Your task to perform on an android device: Open Yahoo.com Image 0: 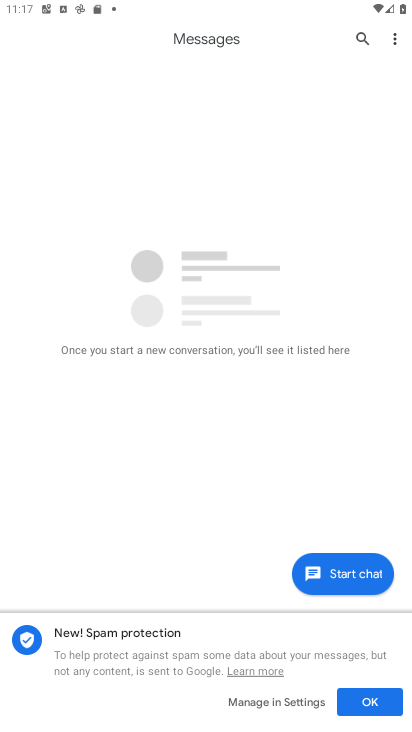
Step 0: press home button
Your task to perform on an android device: Open Yahoo.com Image 1: 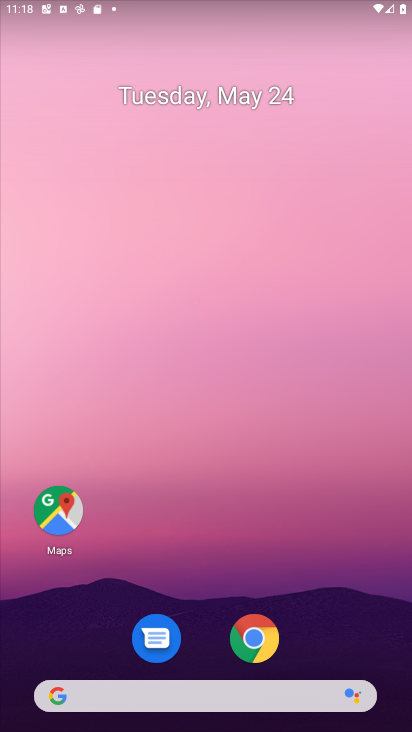
Step 1: click (128, 701)
Your task to perform on an android device: Open Yahoo.com Image 2: 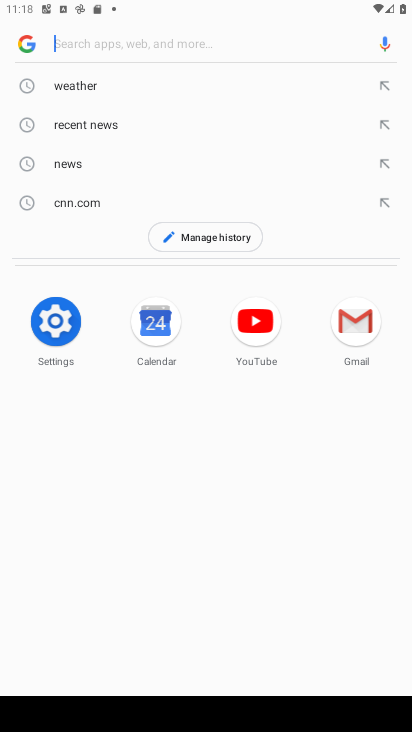
Step 2: click (186, 30)
Your task to perform on an android device: Open Yahoo.com Image 3: 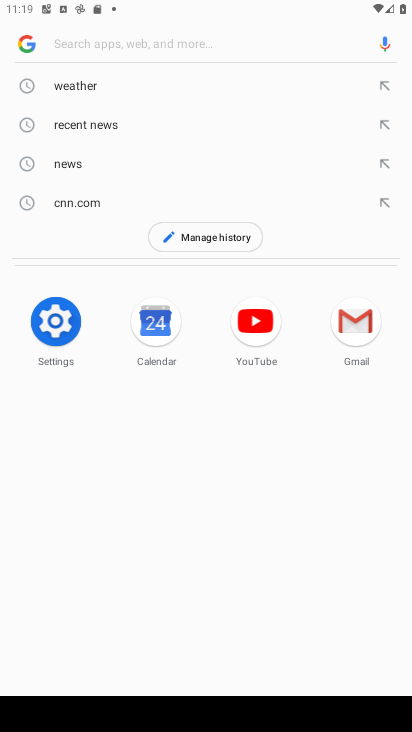
Step 3: type "yahoo.com"
Your task to perform on an android device: Open Yahoo.com Image 4: 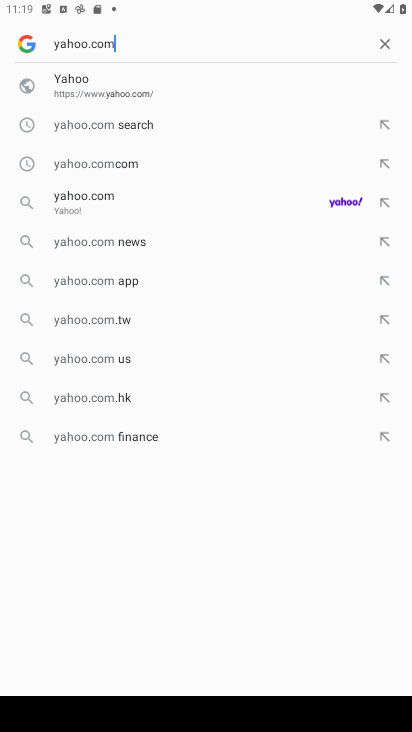
Step 4: click (222, 85)
Your task to perform on an android device: Open Yahoo.com Image 5: 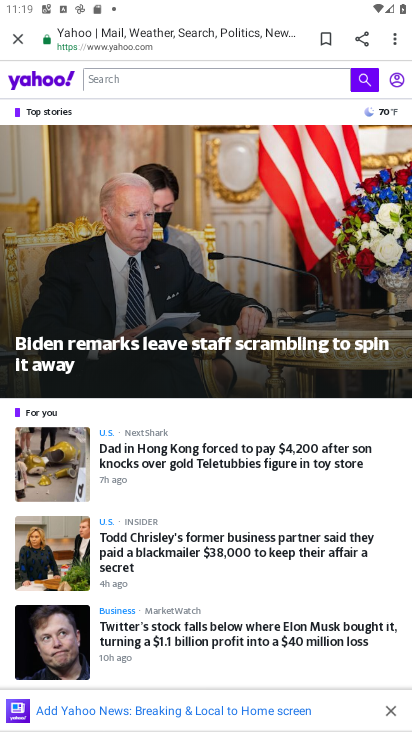
Step 5: task complete